Your task to perform on an android device: turn on airplane mode Image 0: 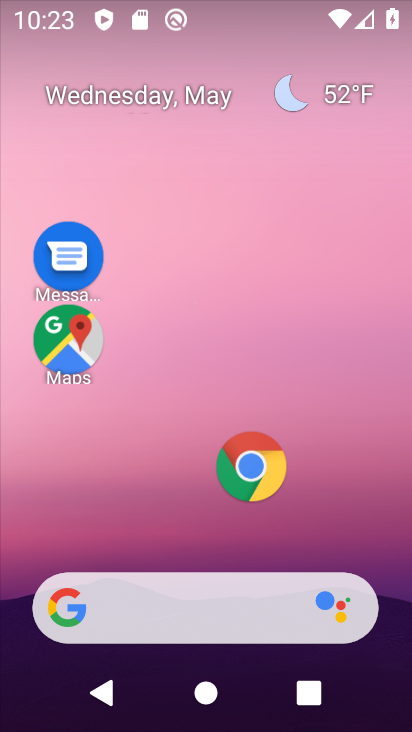
Step 0: drag from (187, 530) to (207, 48)
Your task to perform on an android device: turn on airplane mode Image 1: 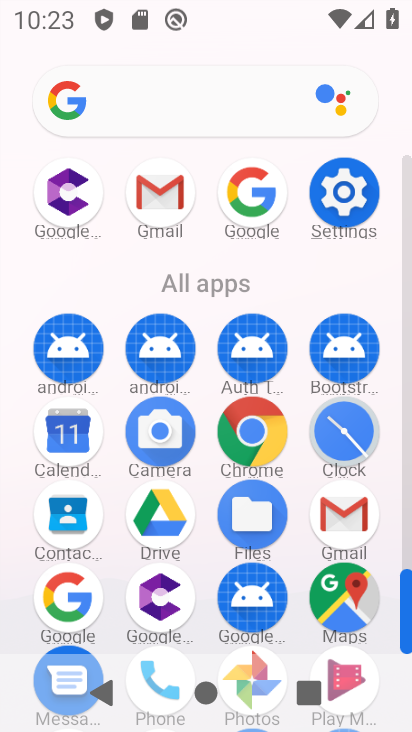
Step 1: click (345, 191)
Your task to perform on an android device: turn on airplane mode Image 2: 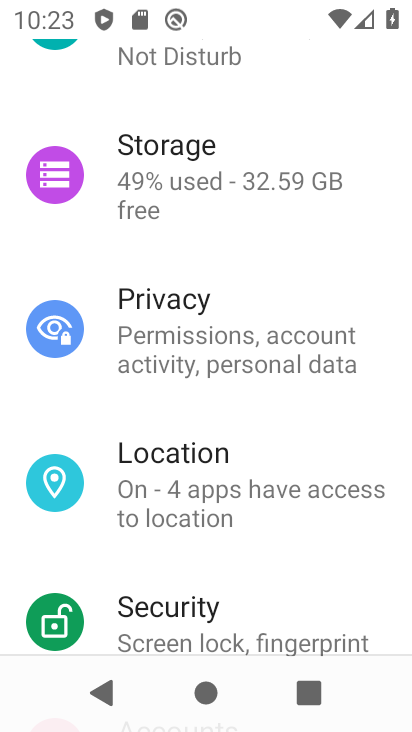
Step 2: drag from (196, 216) to (243, 682)
Your task to perform on an android device: turn on airplane mode Image 3: 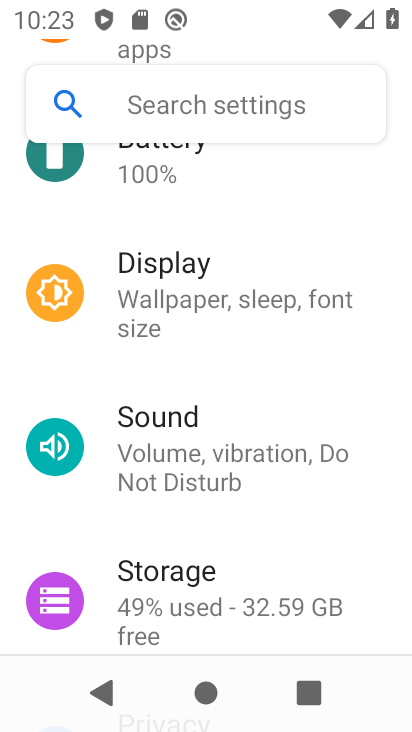
Step 3: drag from (156, 221) to (379, 725)
Your task to perform on an android device: turn on airplane mode Image 4: 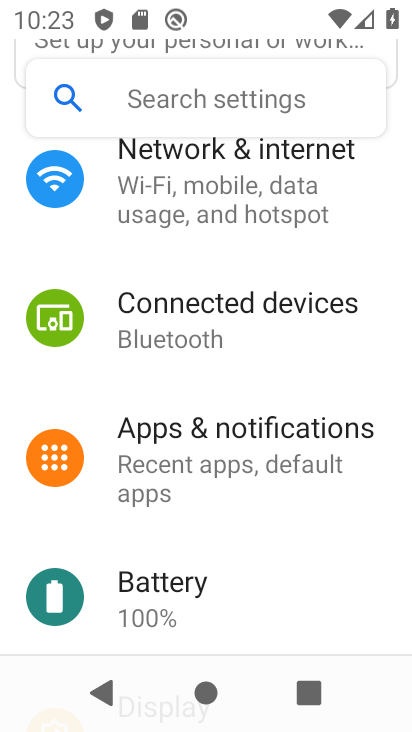
Step 4: click (175, 175)
Your task to perform on an android device: turn on airplane mode Image 5: 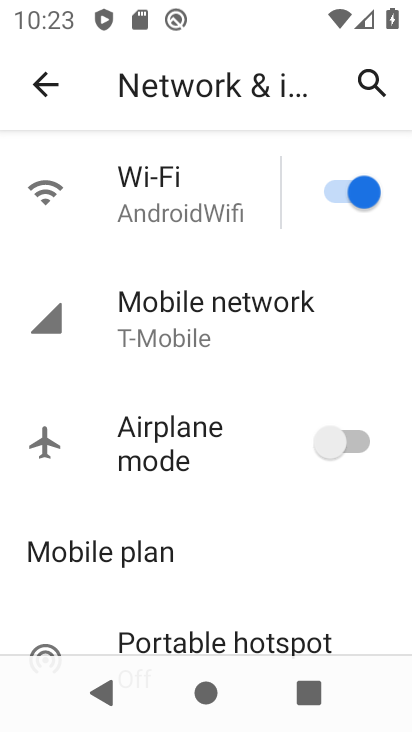
Step 5: click (338, 448)
Your task to perform on an android device: turn on airplane mode Image 6: 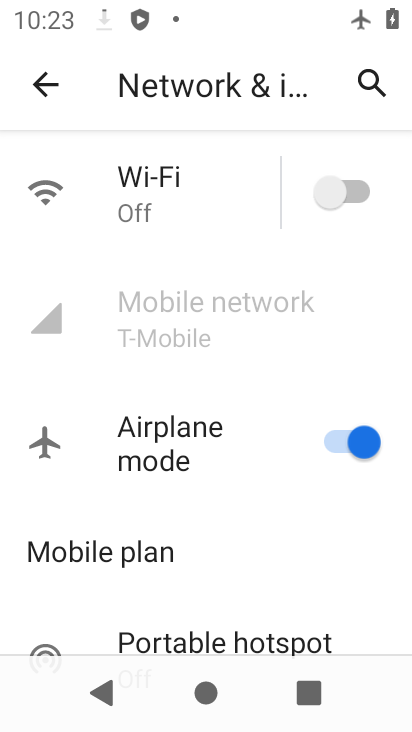
Step 6: task complete